Your task to perform on an android device: Go to Google maps Image 0: 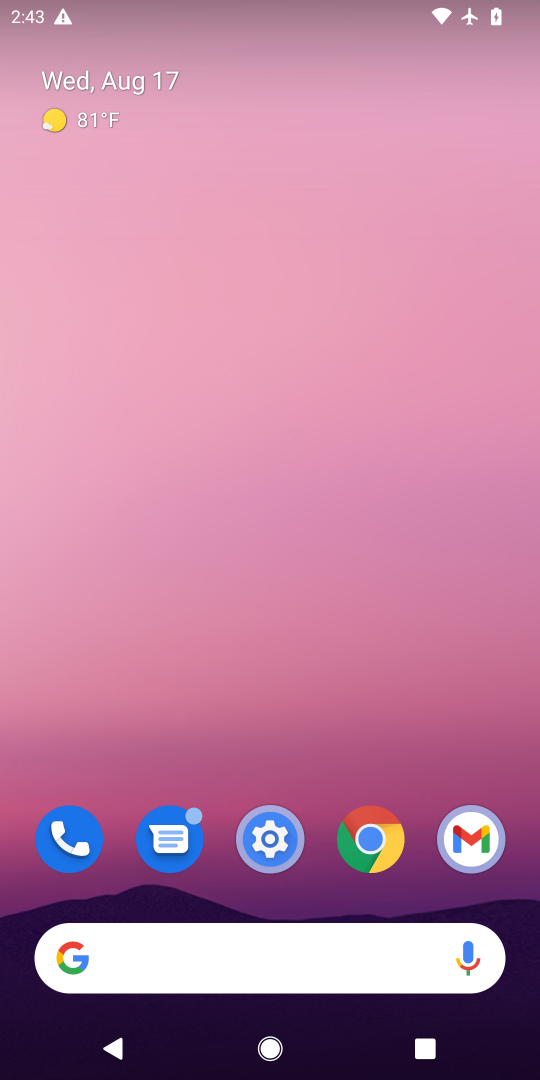
Step 0: drag from (306, 904) to (194, 107)
Your task to perform on an android device: Go to Google maps Image 1: 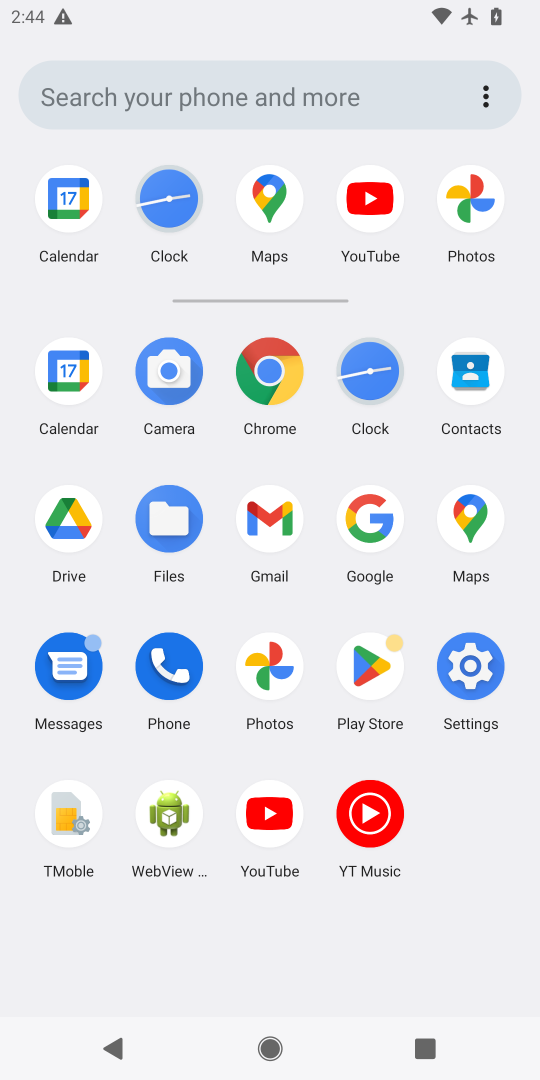
Step 1: click (474, 510)
Your task to perform on an android device: Go to Google maps Image 2: 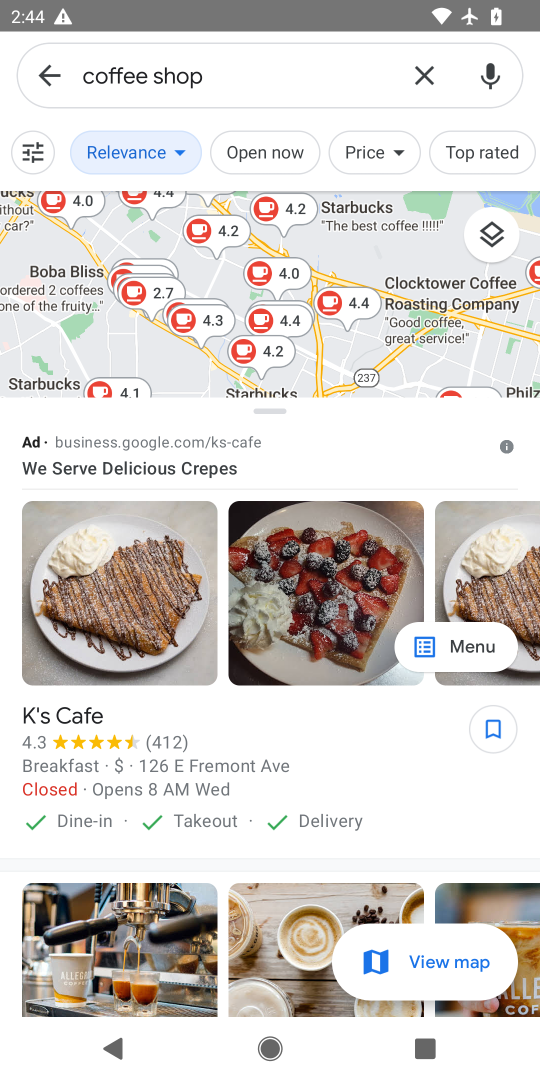
Step 2: task complete